Your task to perform on an android device: Search for Italian restaurants on Maps Image 0: 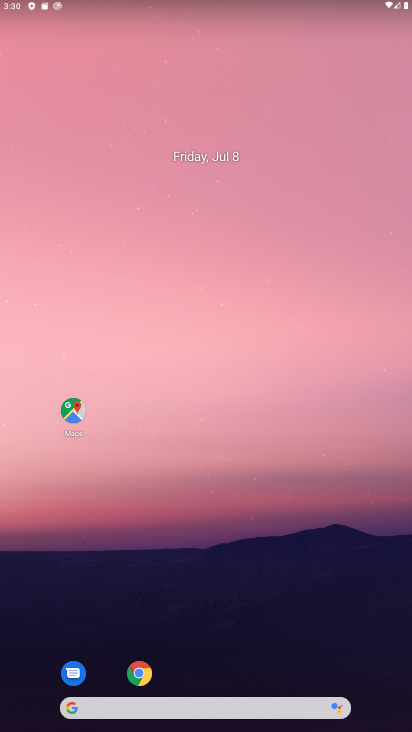
Step 0: click (67, 414)
Your task to perform on an android device: Search for Italian restaurants on Maps Image 1: 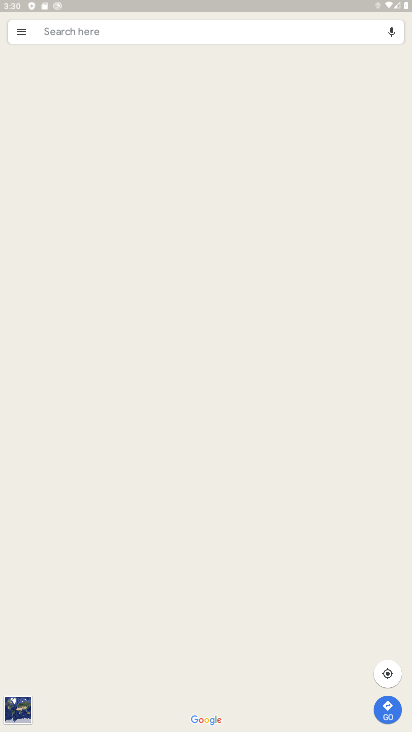
Step 1: click (192, 32)
Your task to perform on an android device: Search for Italian restaurants on Maps Image 2: 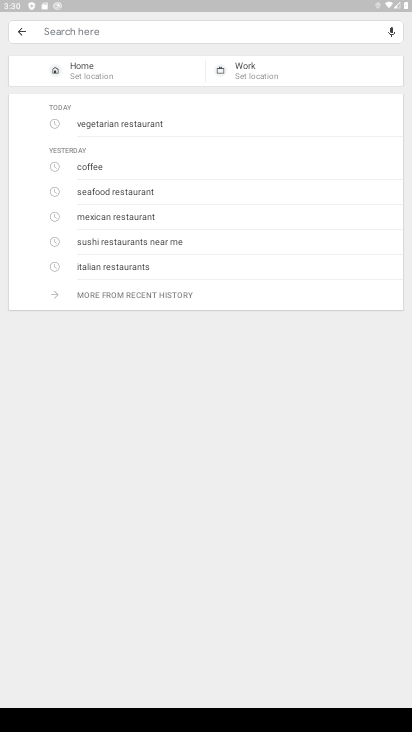
Step 2: type "italian restaurants"
Your task to perform on an android device: Search for Italian restaurants on Maps Image 3: 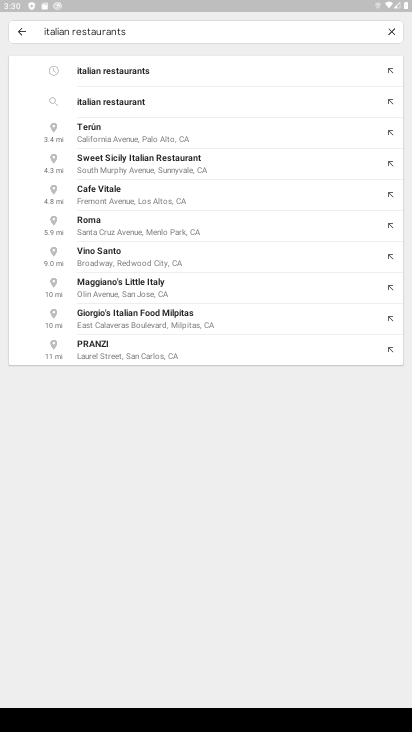
Step 3: click (108, 65)
Your task to perform on an android device: Search for Italian restaurants on Maps Image 4: 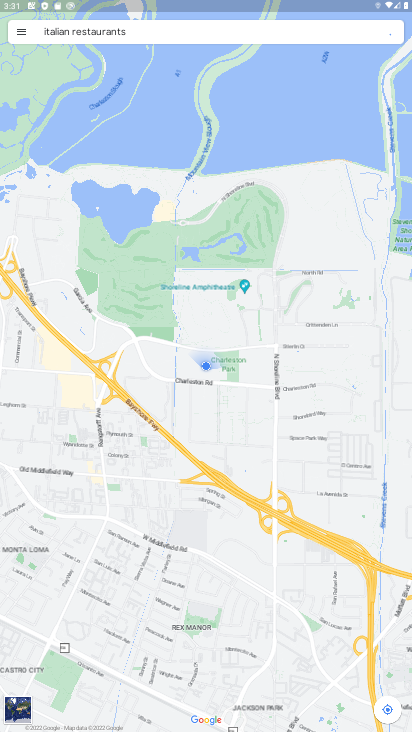
Step 4: click (137, 36)
Your task to perform on an android device: Search for Italian restaurants on Maps Image 5: 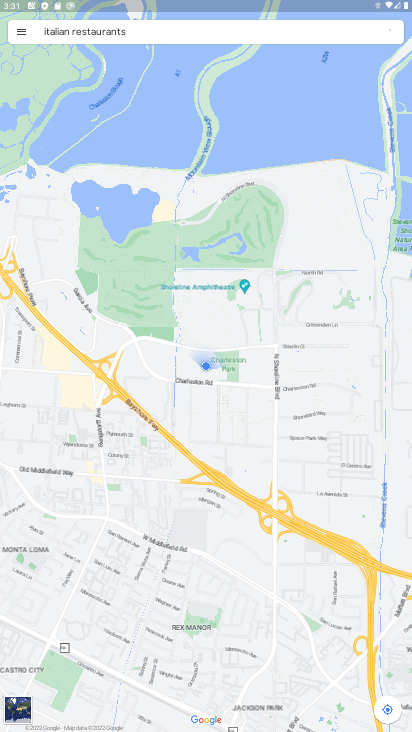
Step 5: click (126, 32)
Your task to perform on an android device: Search for Italian restaurants on Maps Image 6: 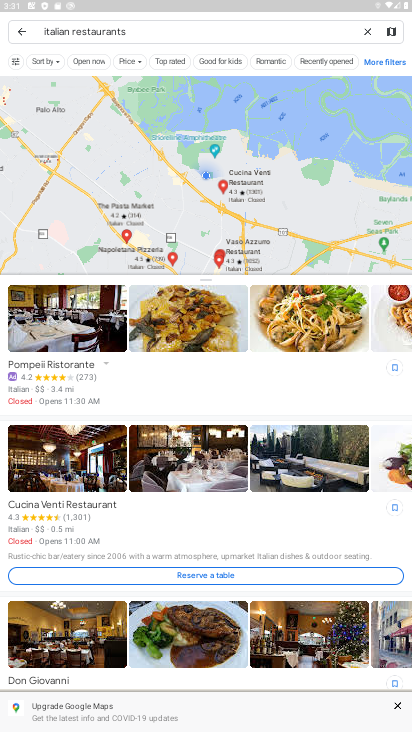
Step 6: task complete